Your task to perform on an android device: clear history in the chrome app Image 0: 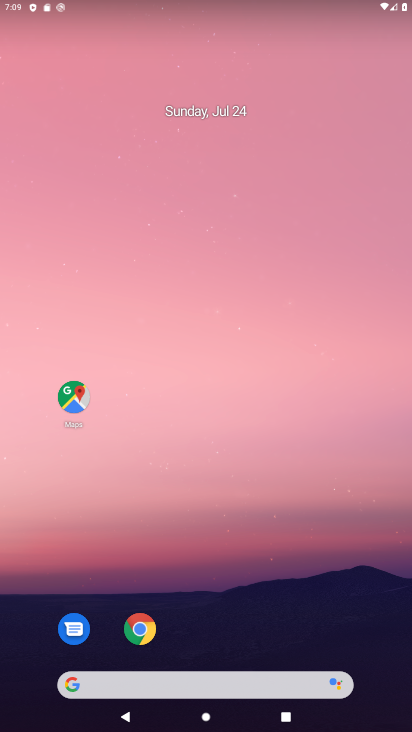
Step 0: drag from (362, 642) to (156, 5)
Your task to perform on an android device: clear history in the chrome app Image 1: 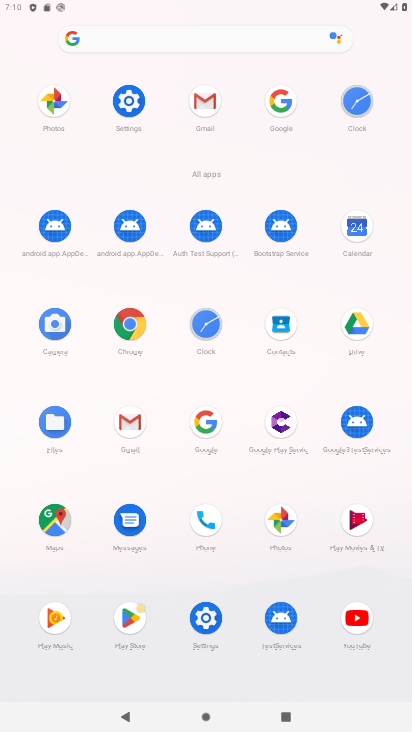
Step 1: click (129, 319)
Your task to perform on an android device: clear history in the chrome app Image 2: 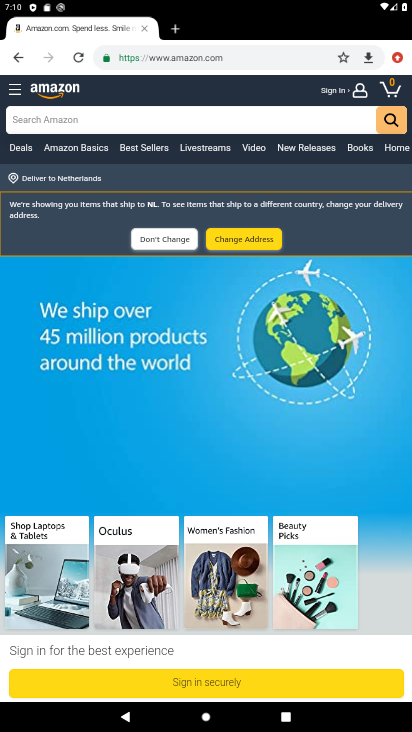
Step 2: press back button
Your task to perform on an android device: clear history in the chrome app Image 3: 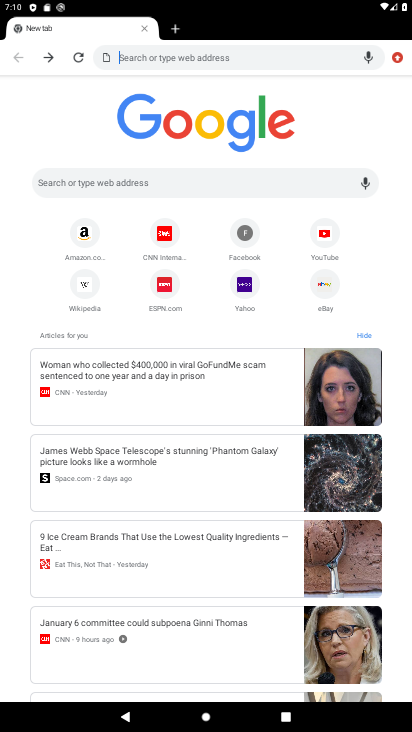
Step 3: click (390, 55)
Your task to perform on an android device: clear history in the chrome app Image 4: 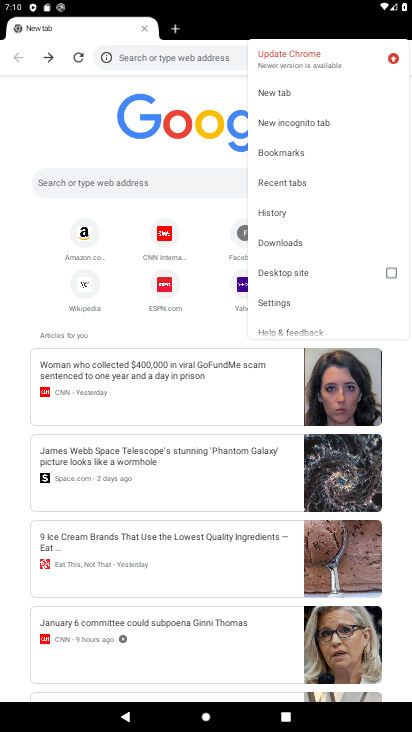
Step 4: click (278, 211)
Your task to perform on an android device: clear history in the chrome app Image 5: 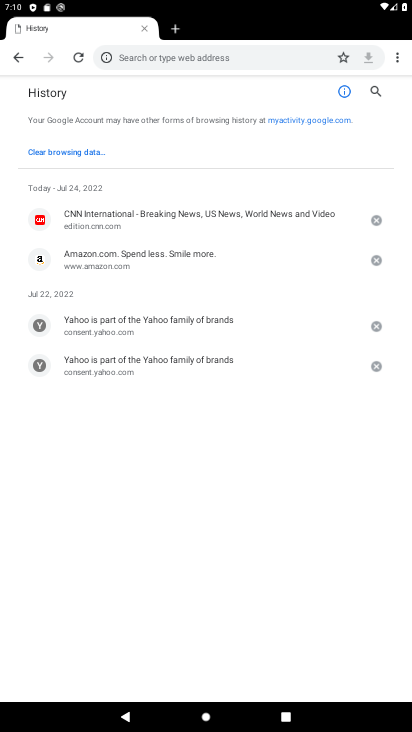
Step 5: click (52, 158)
Your task to perform on an android device: clear history in the chrome app Image 6: 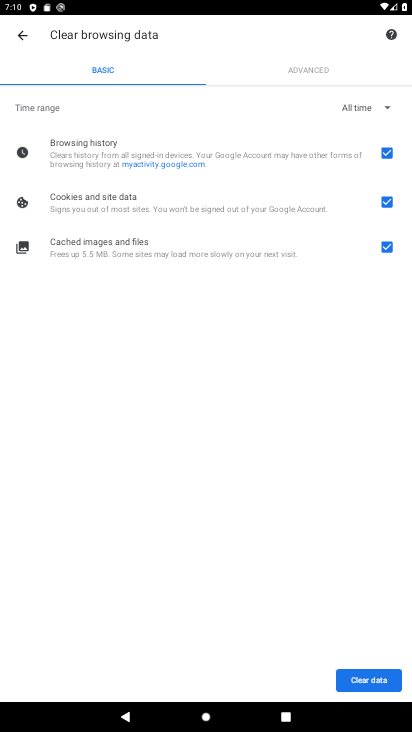
Step 6: click (369, 678)
Your task to perform on an android device: clear history in the chrome app Image 7: 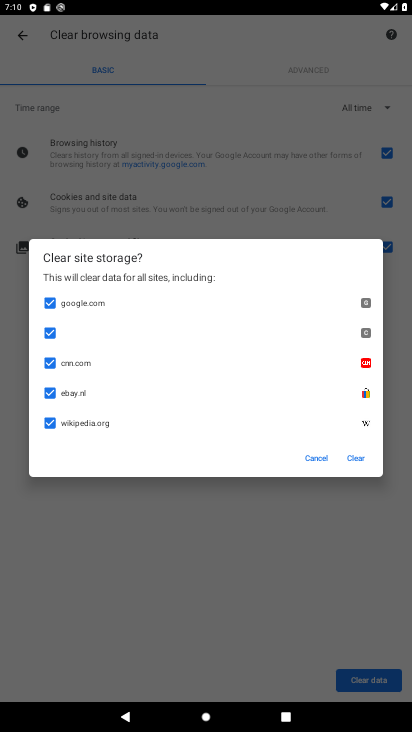
Step 7: click (362, 458)
Your task to perform on an android device: clear history in the chrome app Image 8: 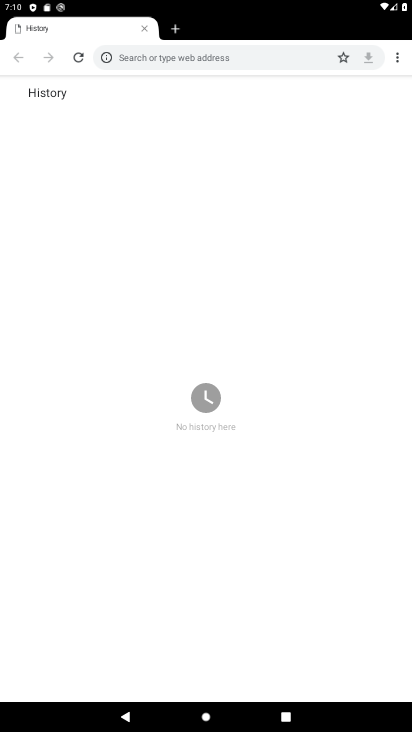
Step 8: task complete